Your task to perform on an android device: open wifi settings Image 0: 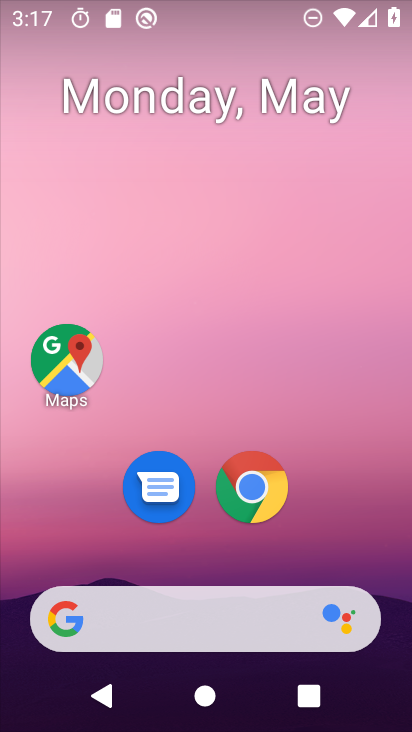
Step 0: drag from (222, 570) to (245, 192)
Your task to perform on an android device: open wifi settings Image 1: 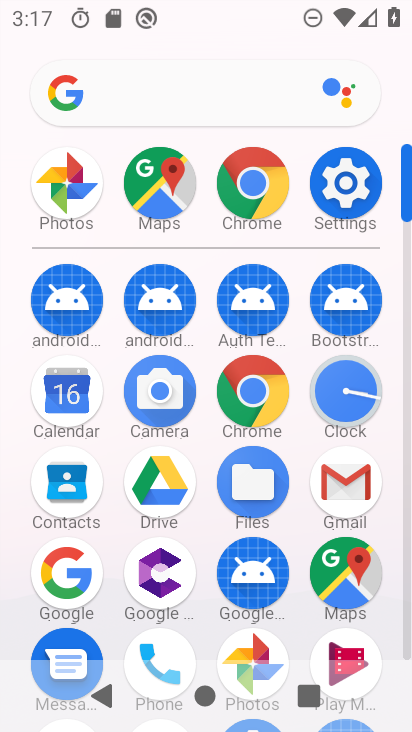
Step 1: click (357, 187)
Your task to perform on an android device: open wifi settings Image 2: 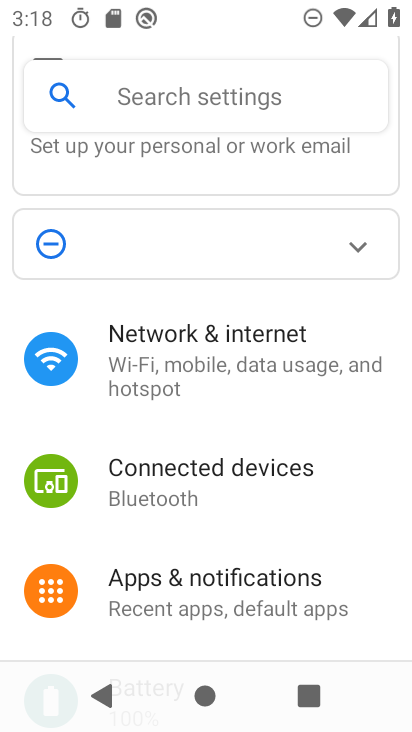
Step 2: click (215, 103)
Your task to perform on an android device: open wifi settings Image 3: 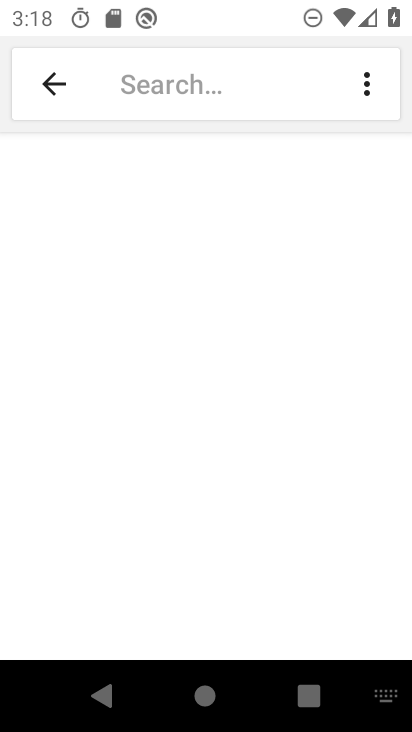
Step 3: click (59, 85)
Your task to perform on an android device: open wifi settings Image 4: 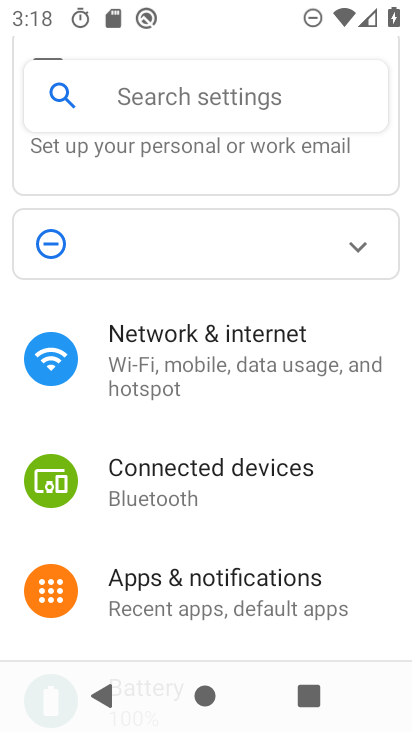
Step 4: click (183, 364)
Your task to perform on an android device: open wifi settings Image 5: 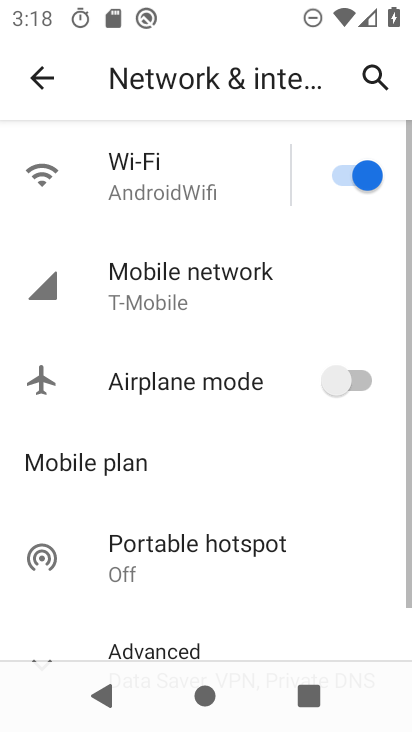
Step 5: click (184, 190)
Your task to perform on an android device: open wifi settings Image 6: 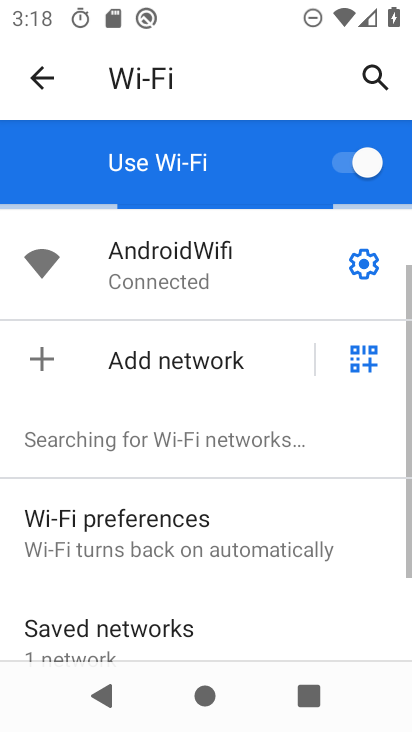
Step 6: task complete